Your task to perform on an android device: Go to Maps Image 0: 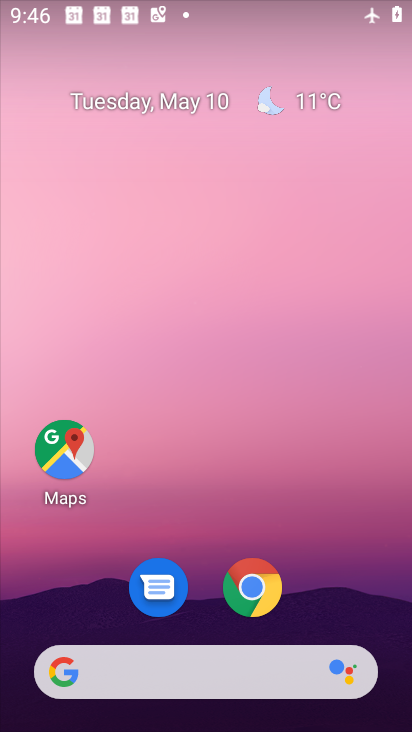
Step 0: drag from (363, 542) to (363, 223)
Your task to perform on an android device: Go to Maps Image 1: 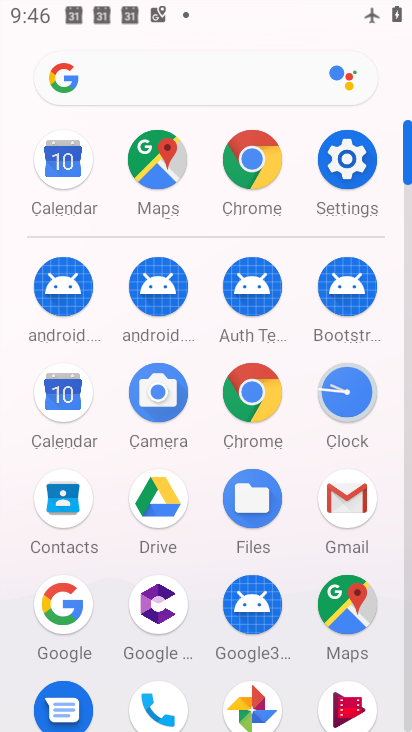
Step 1: click (346, 592)
Your task to perform on an android device: Go to Maps Image 2: 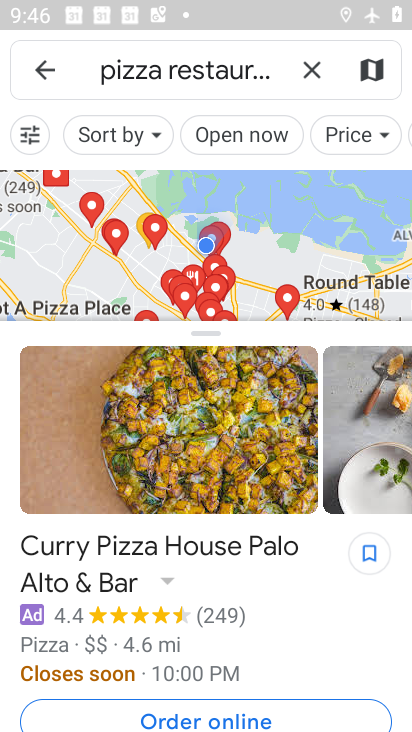
Step 2: task complete